Your task to perform on an android device: Open calendar and show me the fourth week of next month Image 0: 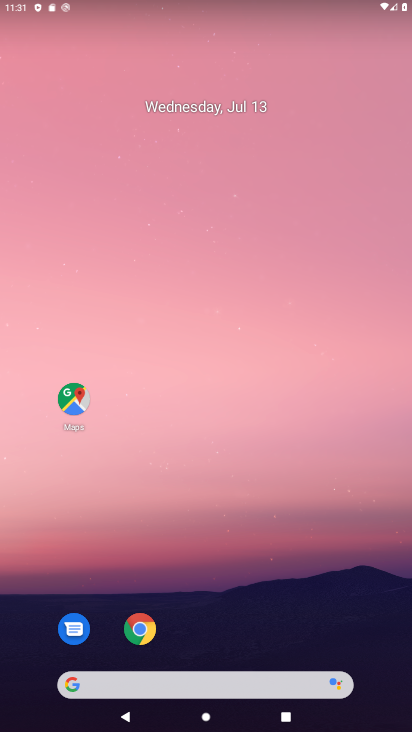
Step 0: drag from (256, 415) to (256, 140)
Your task to perform on an android device: Open calendar and show me the fourth week of next month Image 1: 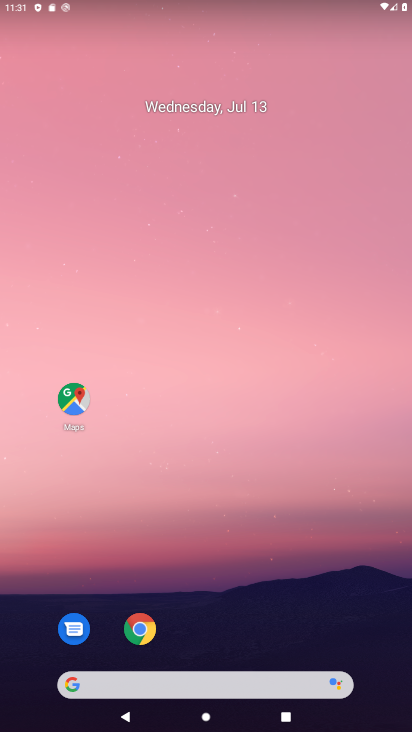
Step 1: drag from (304, 683) to (304, 94)
Your task to perform on an android device: Open calendar and show me the fourth week of next month Image 2: 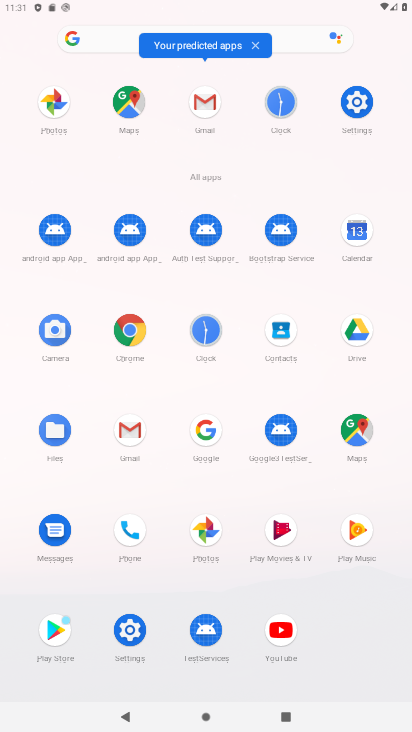
Step 2: click (360, 233)
Your task to perform on an android device: Open calendar and show me the fourth week of next month Image 3: 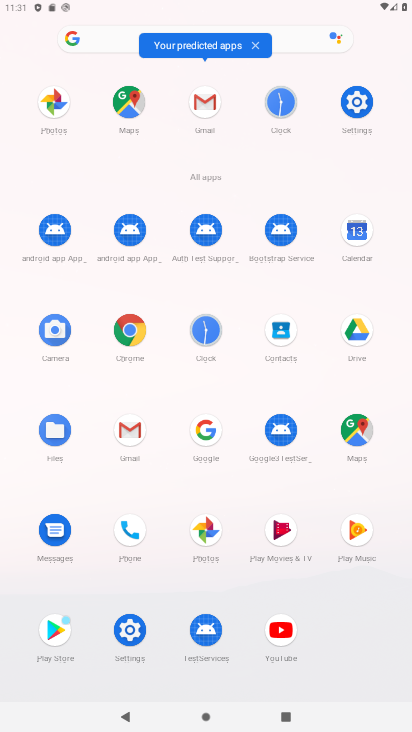
Step 3: click (360, 233)
Your task to perform on an android device: Open calendar and show me the fourth week of next month Image 4: 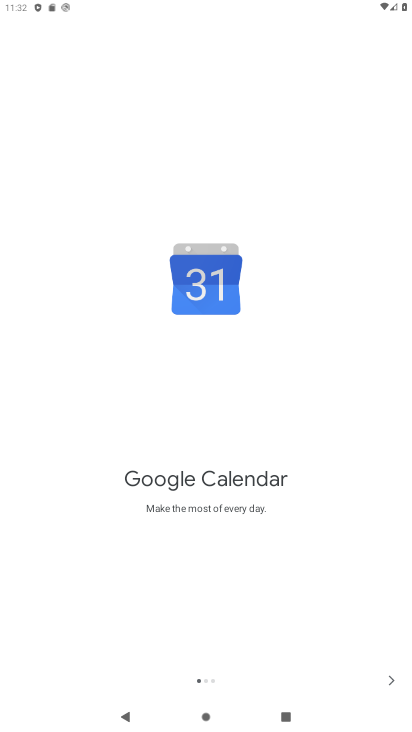
Step 4: click (383, 684)
Your task to perform on an android device: Open calendar and show me the fourth week of next month Image 5: 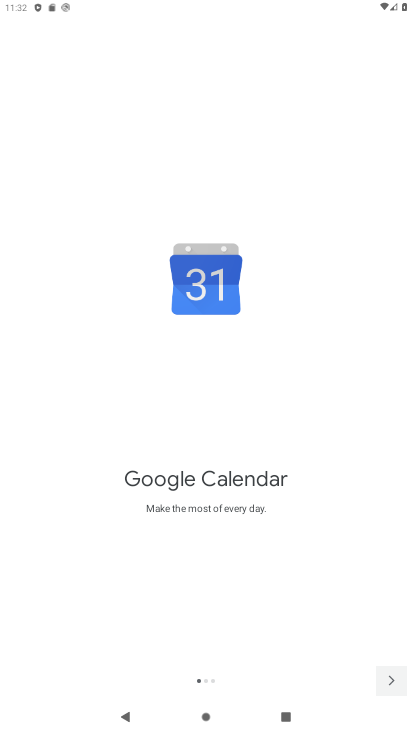
Step 5: click (396, 681)
Your task to perform on an android device: Open calendar and show me the fourth week of next month Image 6: 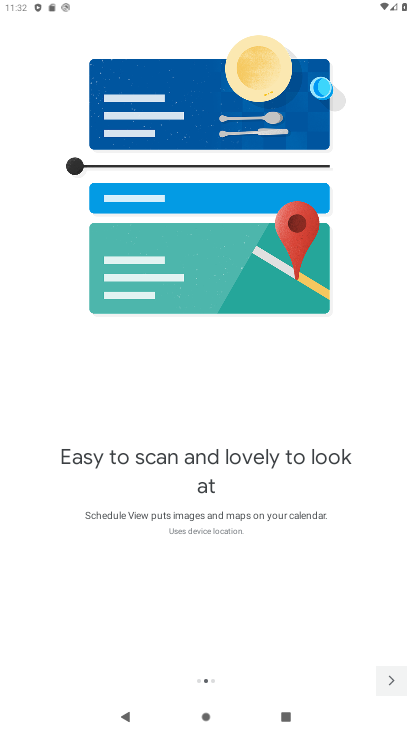
Step 6: click (392, 677)
Your task to perform on an android device: Open calendar and show me the fourth week of next month Image 7: 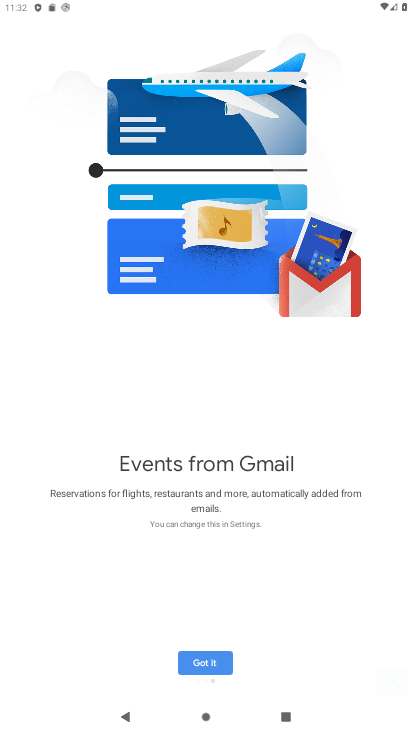
Step 7: click (394, 677)
Your task to perform on an android device: Open calendar and show me the fourth week of next month Image 8: 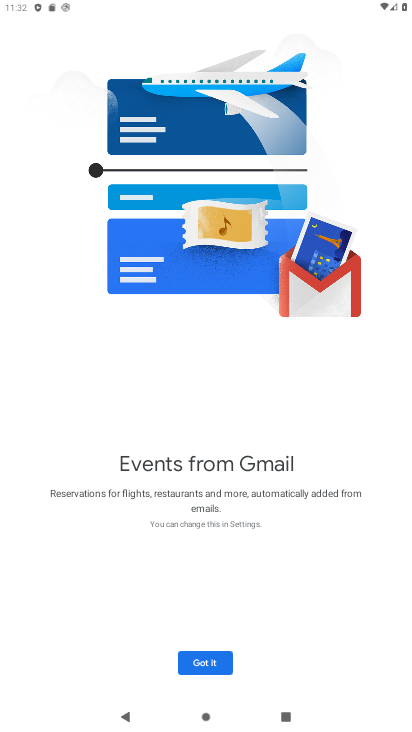
Step 8: click (394, 678)
Your task to perform on an android device: Open calendar and show me the fourth week of next month Image 9: 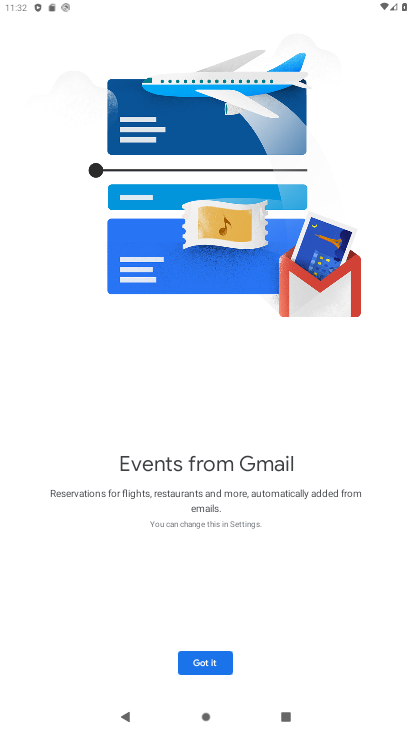
Step 9: click (391, 681)
Your task to perform on an android device: Open calendar and show me the fourth week of next month Image 10: 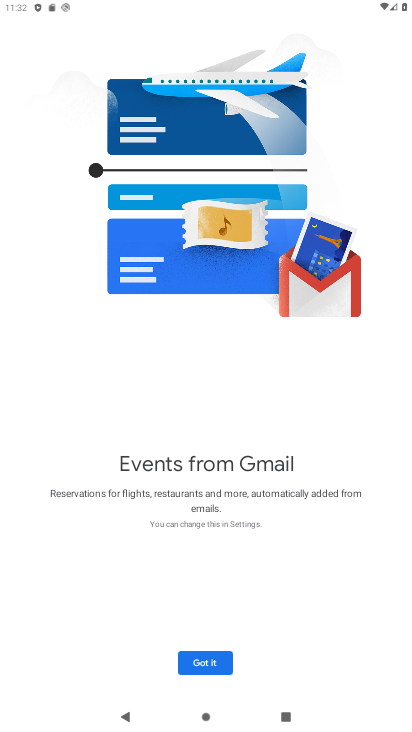
Step 10: click (181, 659)
Your task to perform on an android device: Open calendar and show me the fourth week of next month Image 11: 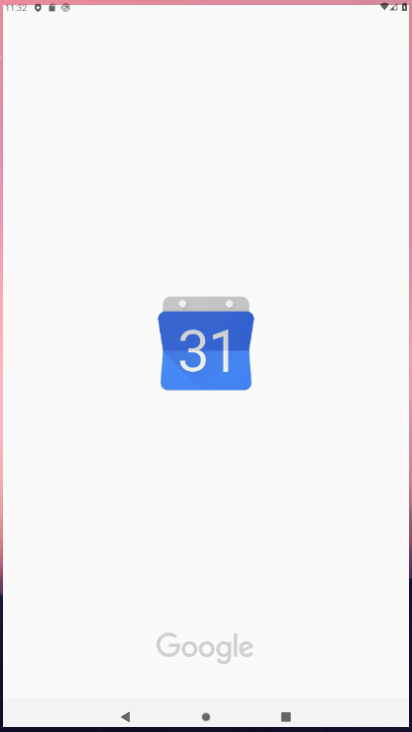
Step 11: click (211, 660)
Your task to perform on an android device: Open calendar and show me the fourth week of next month Image 12: 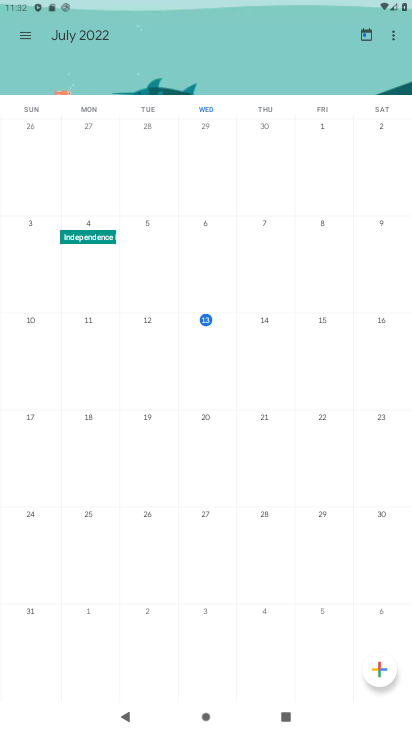
Step 12: drag from (359, 311) to (21, 250)
Your task to perform on an android device: Open calendar and show me the fourth week of next month Image 13: 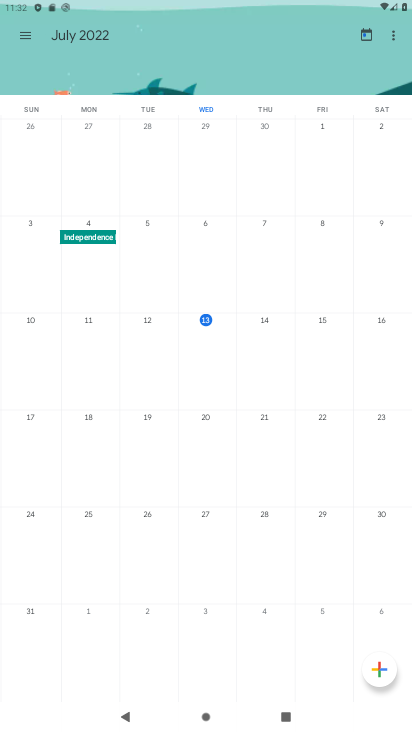
Step 13: drag from (326, 370) to (27, 492)
Your task to perform on an android device: Open calendar and show me the fourth week of next month Image 14: 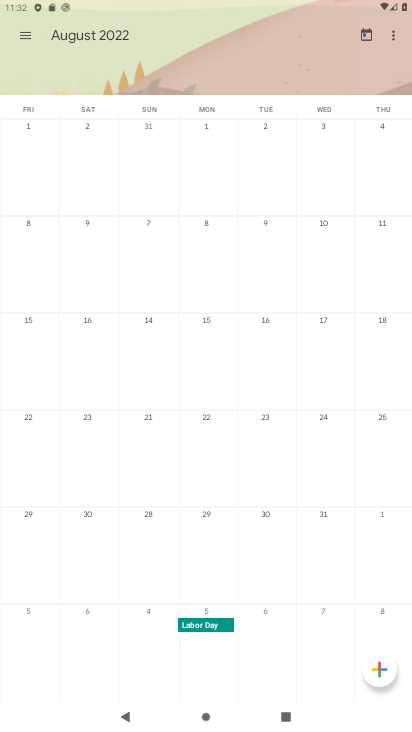
Step 14: drag from (323, 430) to (90, 378)
Your task to perform on an android device: Open calendar and show me the fourth week of next month Image 15: 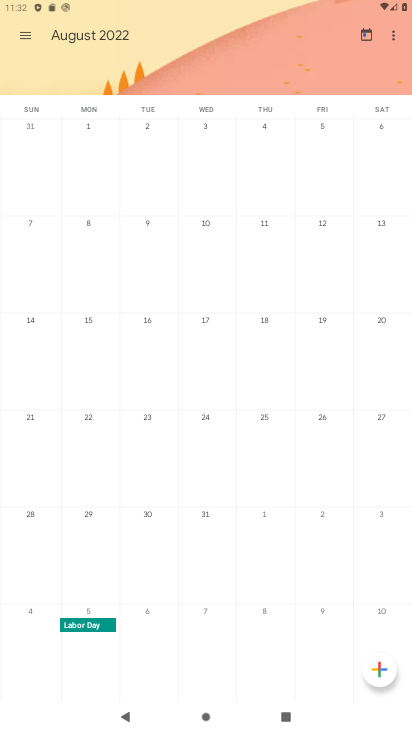
Step 15: drag from (39, 503) to (30, 415)
Your task to perform on an android device: Open calendar and show me the fourth week of next month Image 16: 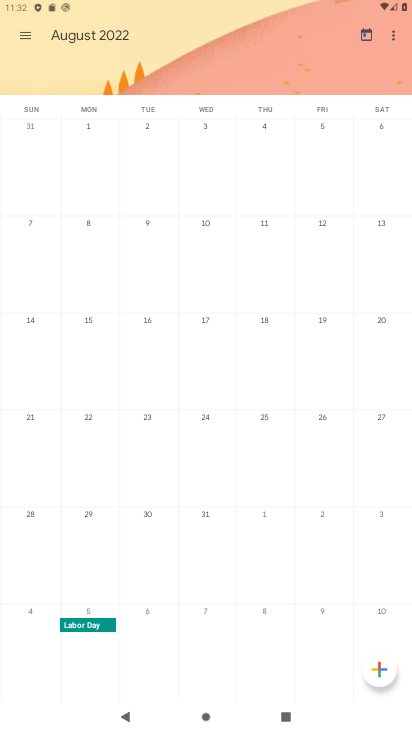
Step 16: click (205, 421)
Your task to perform on an android device: Open calendar and show me the fourth week of next month Image 17: 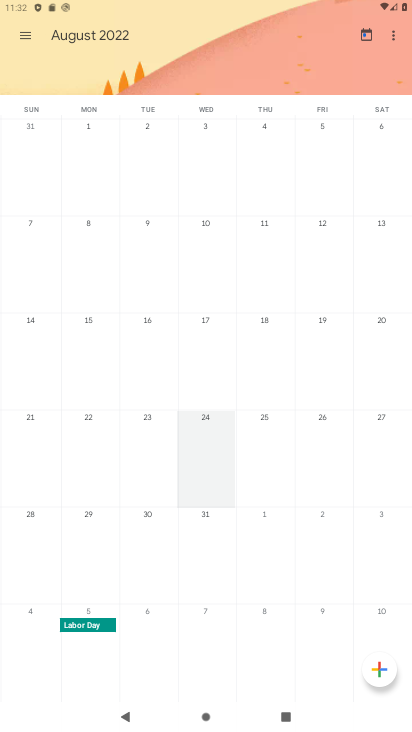
Step 17: click (207, 418)
Your task to perform on an android device: Open calendar and show me the fourth week of next month Image 18: 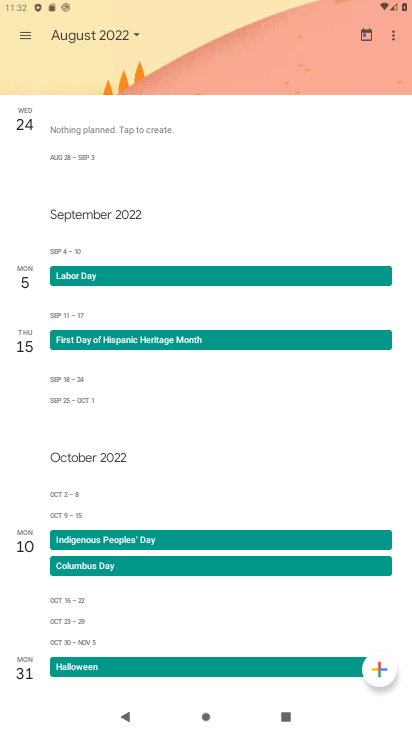
Step 18: task complete